Your task to perform on an android device: open device folders in google photos Image 0: 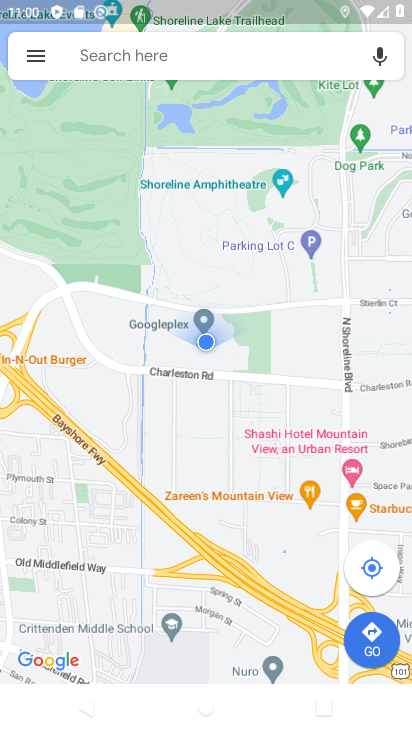
Step 0: press home button
Your task to perform on an android device: open device folders in google photos Image 1: 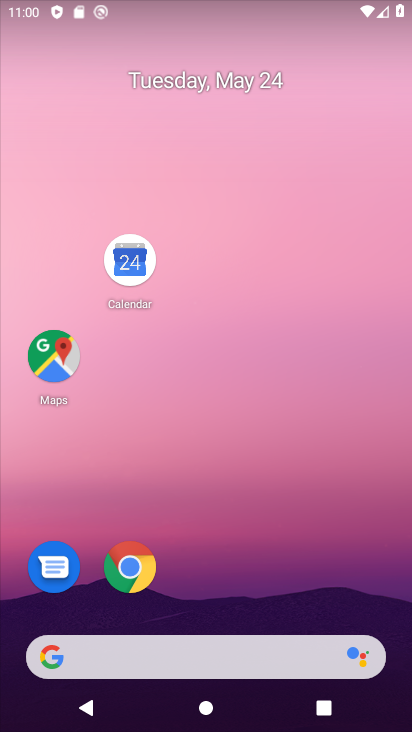
Step 1: drag from (251, 573) to (315, 75)
Your task to perform on an android device: open device folders in google photos Image 2: 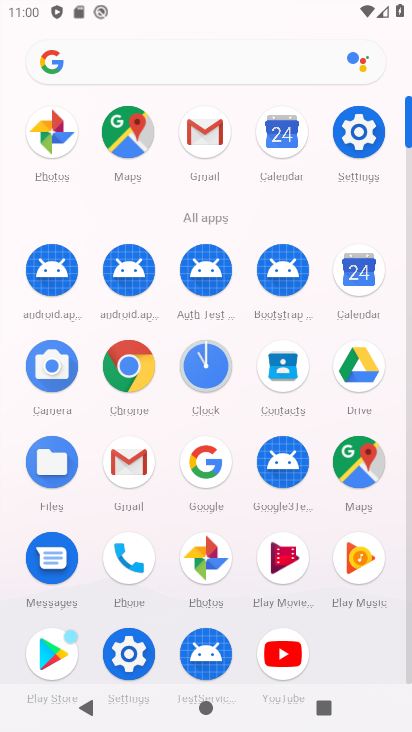
Step 2: drag from (209, 551) to (212, 370)
Your task to perform on an android device: open device folders in google photos Image 3: 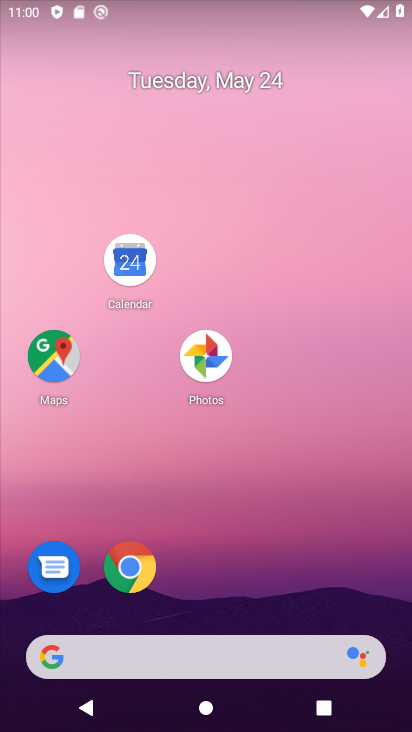
Step 3: click (210, 366)
Your task to perform on an android device: open device folders in google photos Image 4: 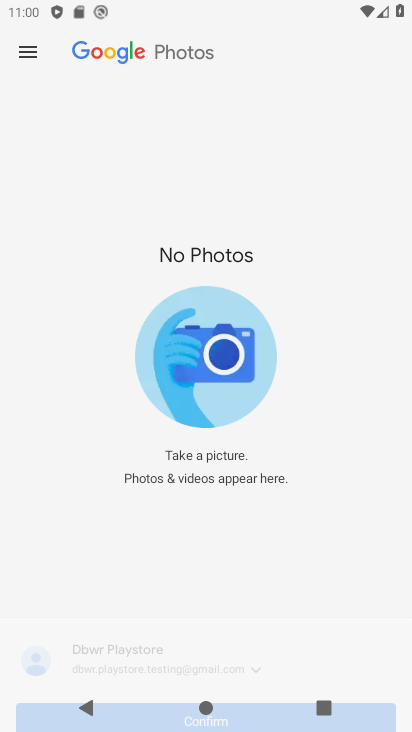
Step 4: click (26, 56)
Your task to perform on an android device: open device folders in google photos Image 5: 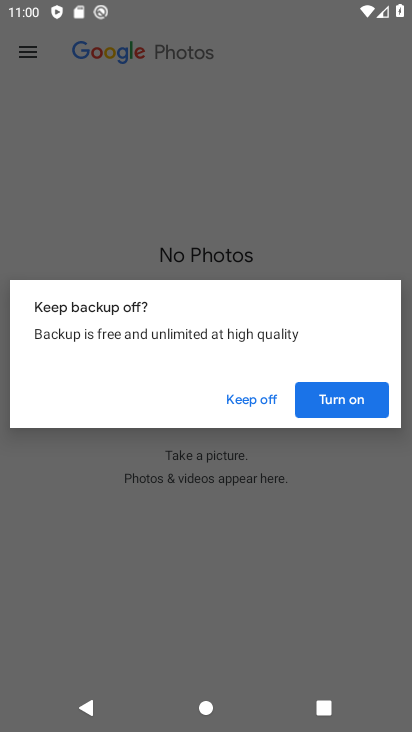
Step 5: click (319, 398)
Your task to perform on an android device: open device folders in google photos Image 6: 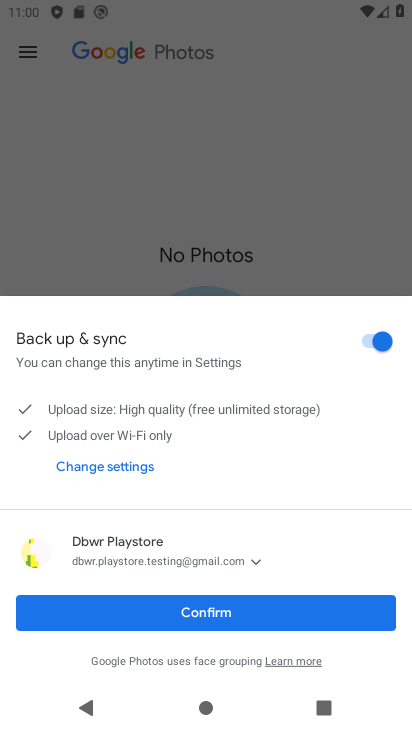
Step 6: click (280, 628)
Your task to perform on an android device: open device folders in google photos Image 7: 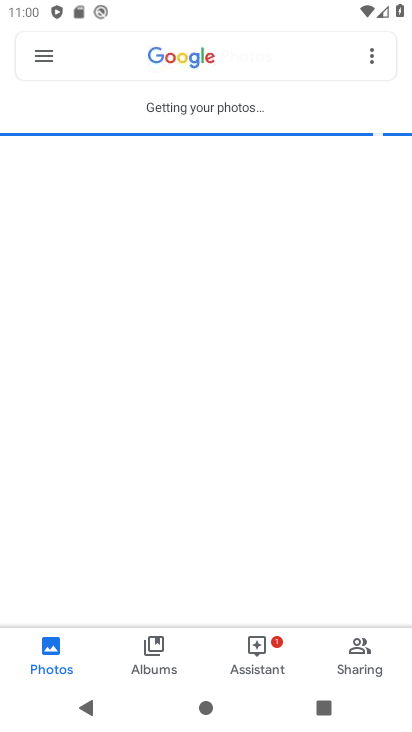
Step 7: click (47, 53)
Your task to perform on an android device: open device folders in google photos Image 8: 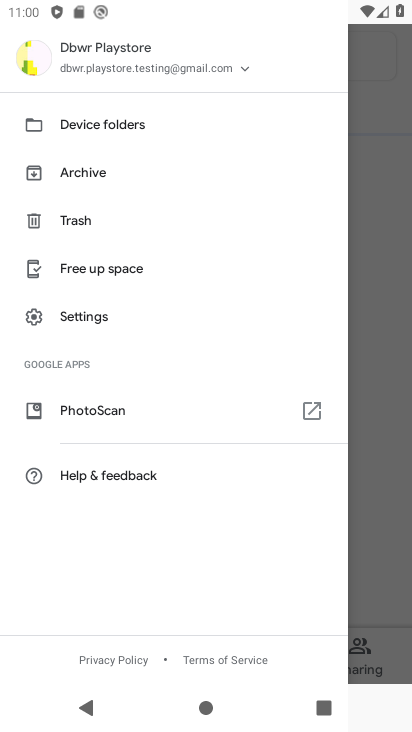
Step 8: click (114, 119)
Your task to perform on an android device: open device folders in google photos Image 9: 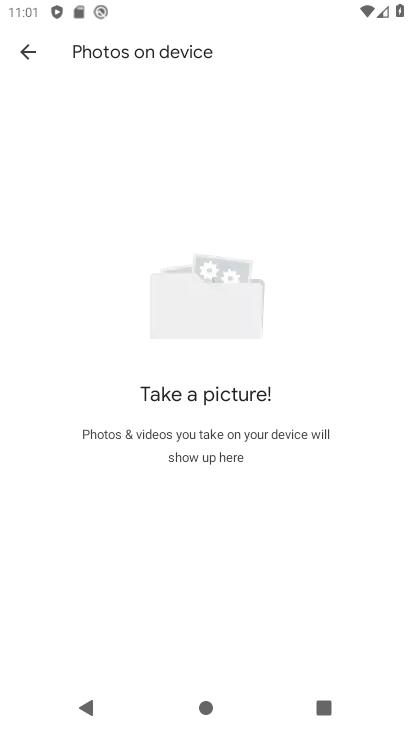
Step 9: task complete